Your task to perform on an android device: clear history in the chrome app Image 0: 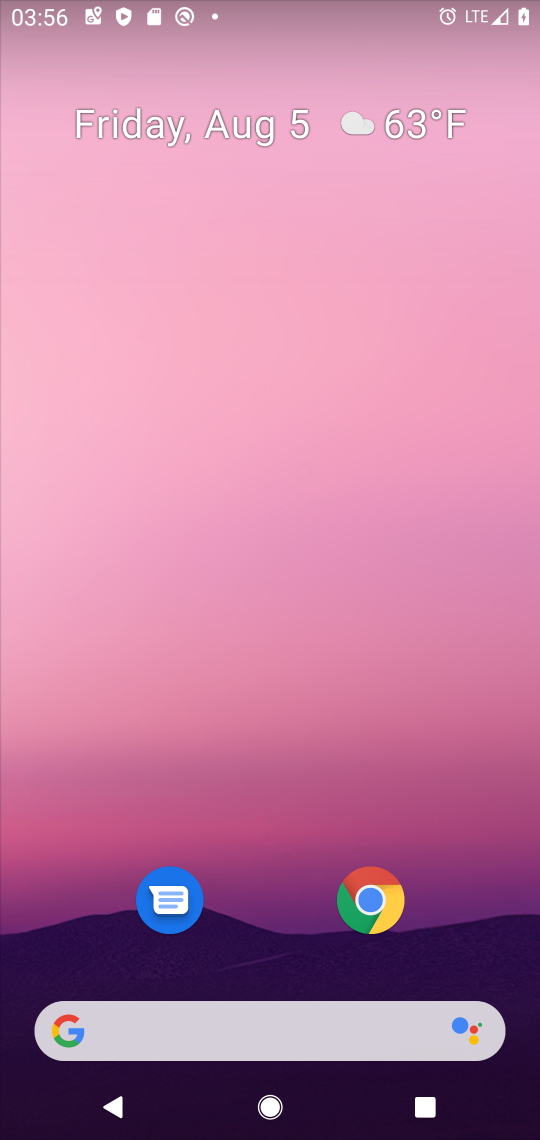
Step 0: click (396, 888)
Your task to perform on an android device: clear history in the chrome app Image 1: 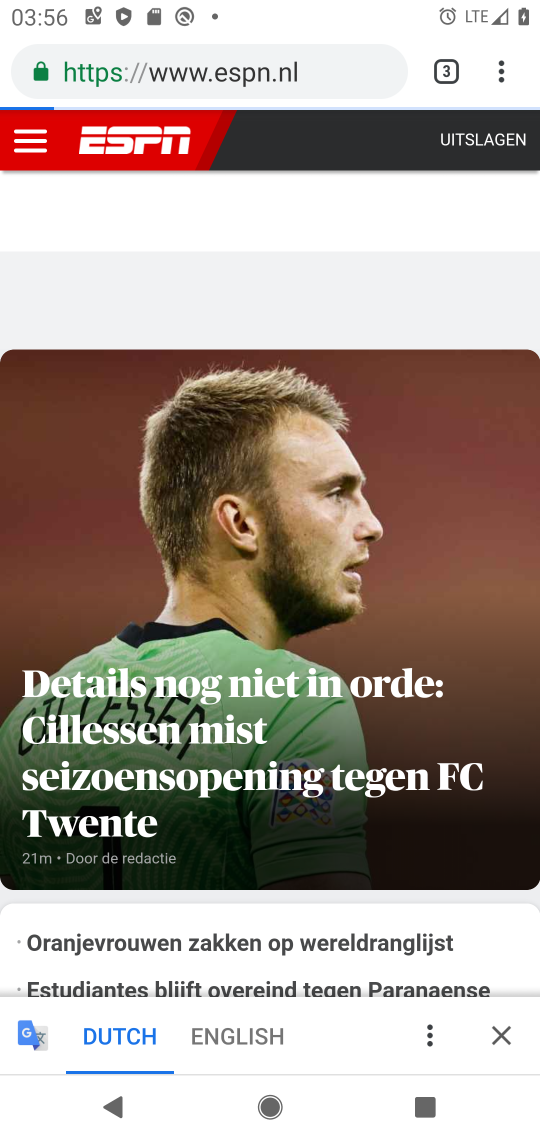
Step 1: drag from (506, 62) to (289, 395)
Your task to perform on an android device: clear history in the chrome app Image 2: 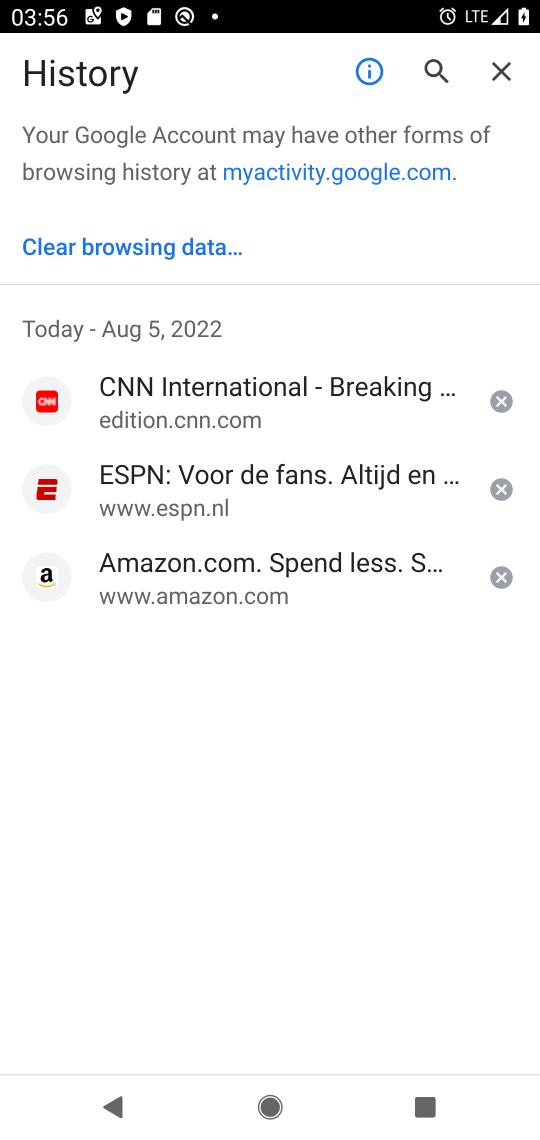
Step 2: click (40, 225)
Your task to perform on an android device: clear history in the chrome app Image 3: 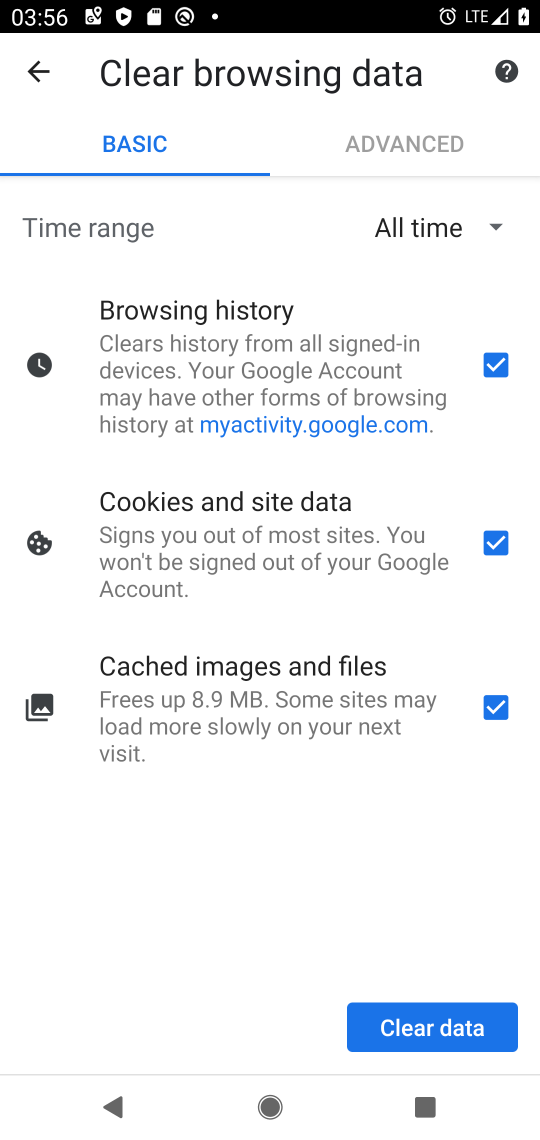
Step 3: click (429, 1020)
Your task to perform on an android device: clear history in the chrome app Image 4: 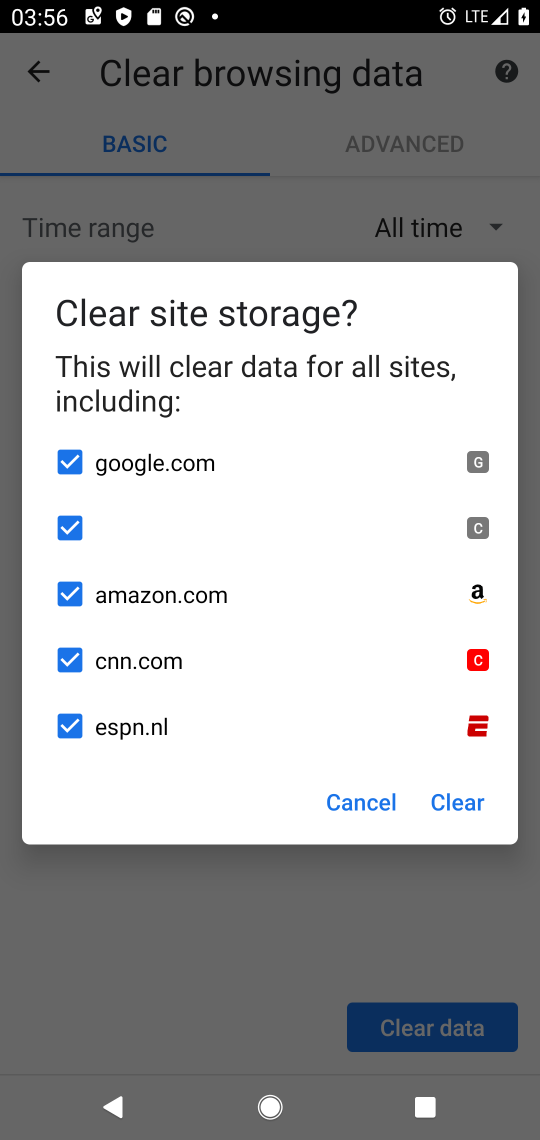
Step 4: click (443, 787)
Your task to perform on an android device: clear history in the chrome app Image 5: 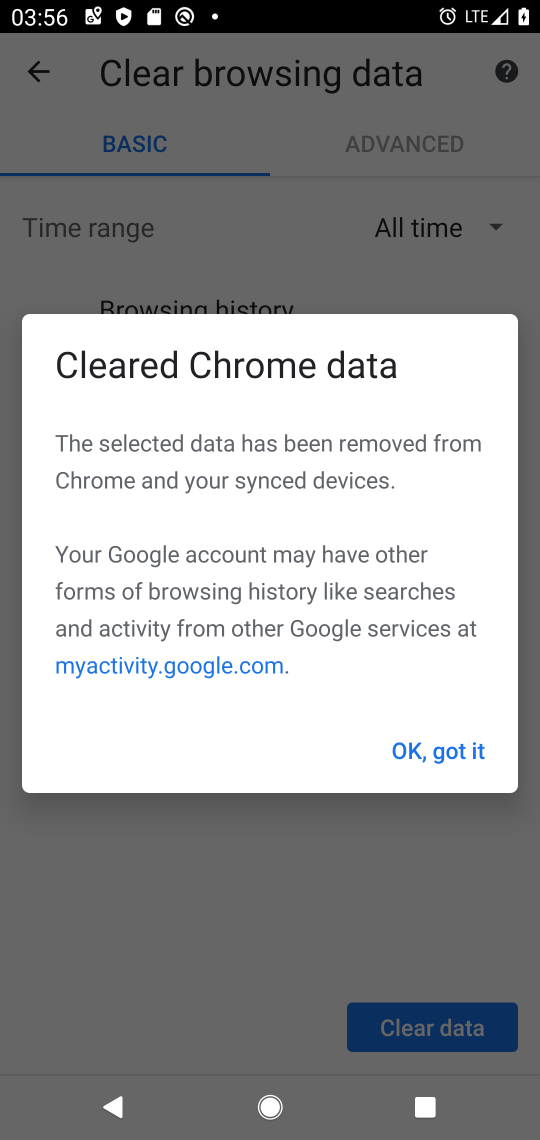
Step 5: click (443, 773)
Your task to perform on an android device: clear history in the chrome app Image 6: 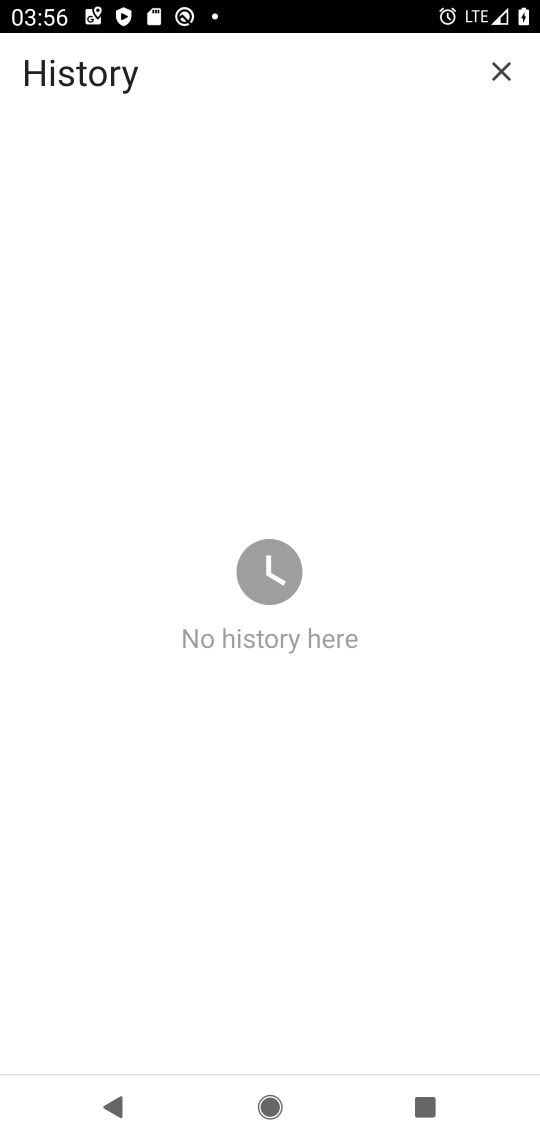
Step 6: task complete